Your task to perform on an android device: Set the phone to "Do not disturb". Image 0: 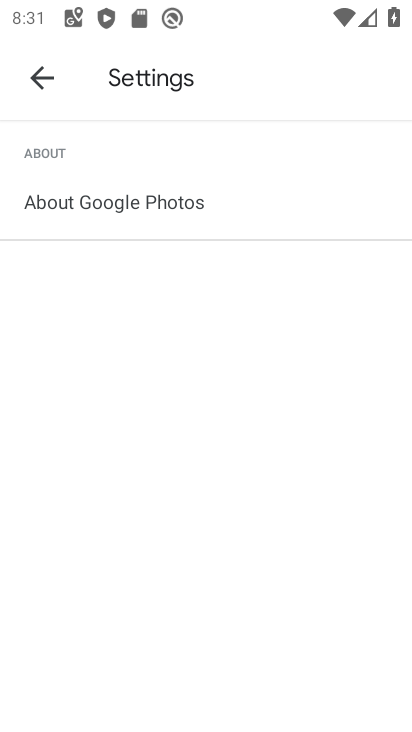
Step 0: press home button
Your task to perform on an android device: Set the phone to "Do not disturb". Image 1: 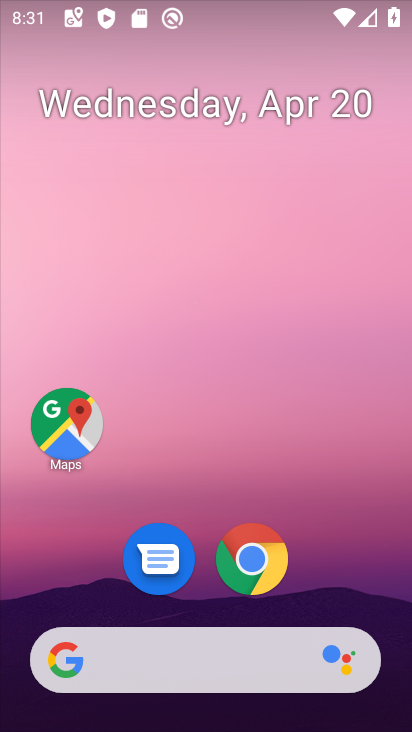
Step 1: drag from (367, 596) to (298, 144)
Your task to perform on an android device: Set the phone to "Do not disturb". Image 2: 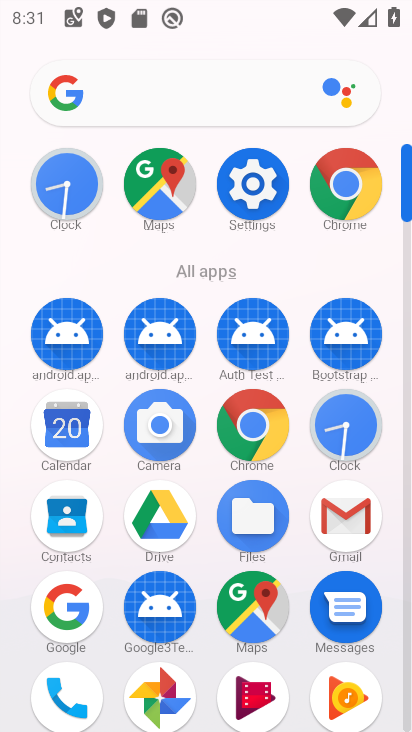
Step 2: click (404, 671)
Your task to perform on an android device: Set the phone to "Do not disturb". Image 3: 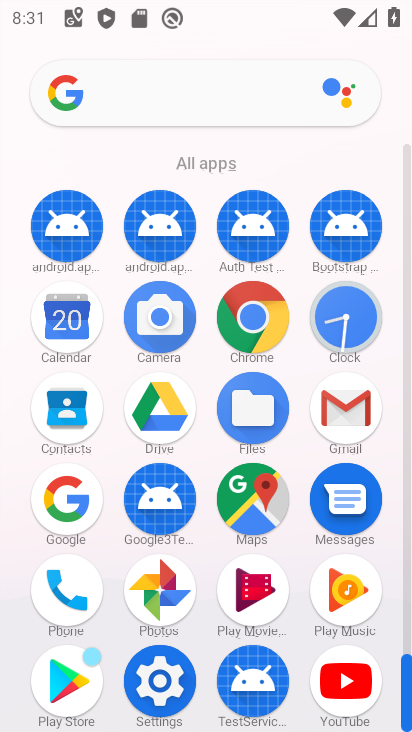
Step 3: click (163, 680)
Your task to perform on an android device: Set the phone to "Do not disturb". Image 4: 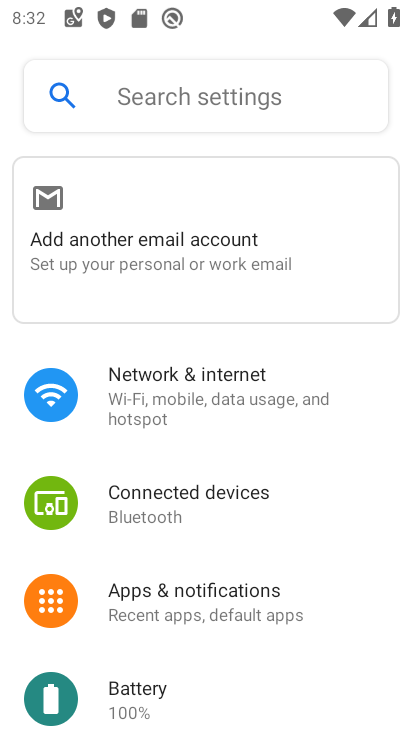
Step 4: drag from (304, 647) to (300, 376)
Your task to perform on an android device: Set the phone to "Do not disturb". Image 5: 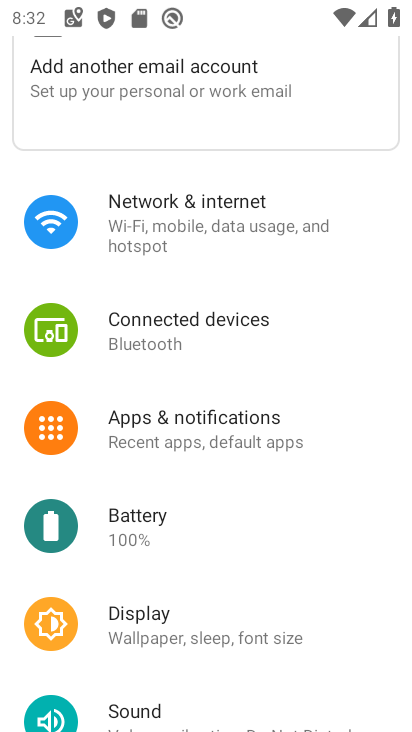
Step 5: drag from (314, 641) to (302, 287)
Your task to perform on an android device: Set the phone to "Do not disturb". Image 6: 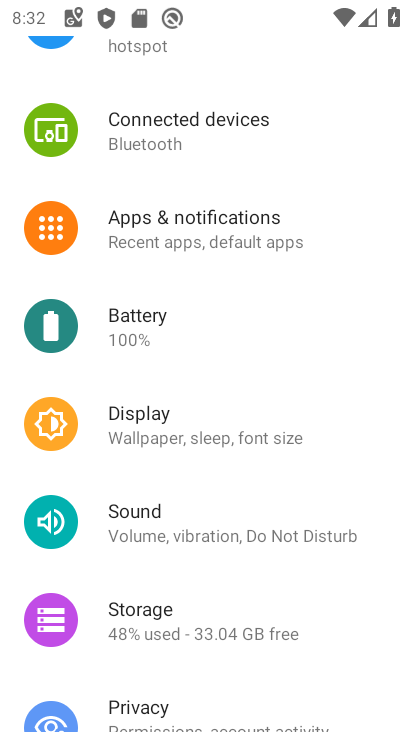
Step 6: click (188, 530)
Your task to perform on an android device: Set the phone to "Do not disturb". Image 7: 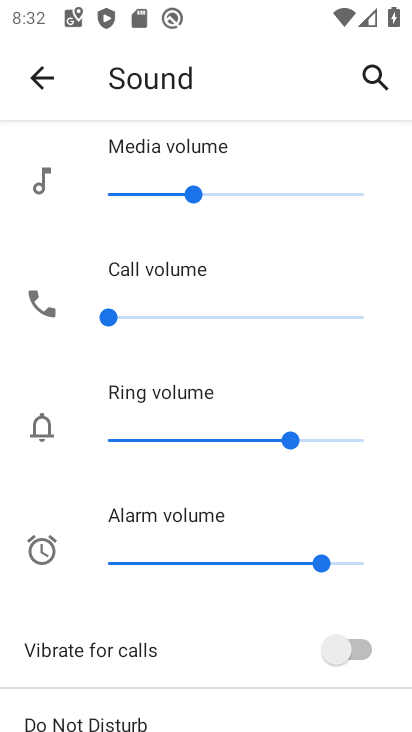
Step 7: drag from (218, 609) to (179, 195)
Your task to perform on an android device: Set the phone to "Do not disturb". Image 8: 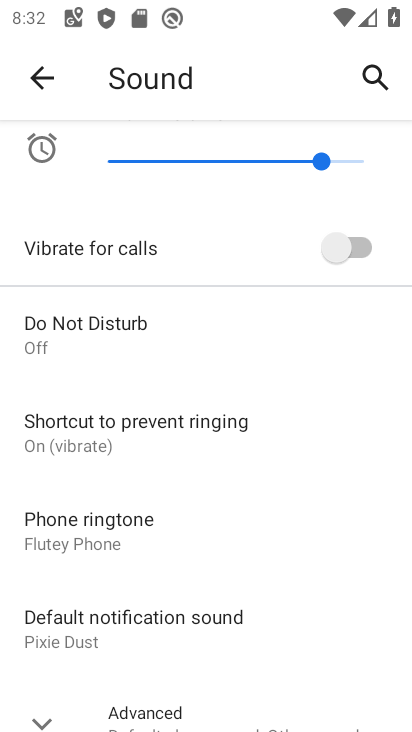
Step 8: click (71, 344)
Your task to perform on an android device: Set the phone to "Do not disturb". Image 9: 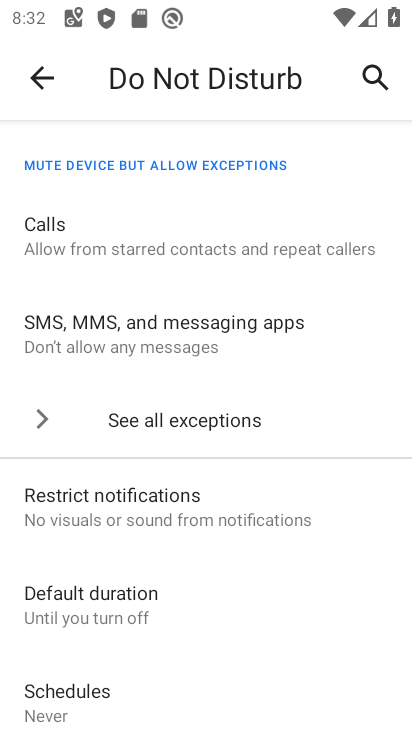
Step 9: drag from (237, 627) to (248, 298)
Your task to perform on an android device: Set the phone to "Do not disturb". Image 10: 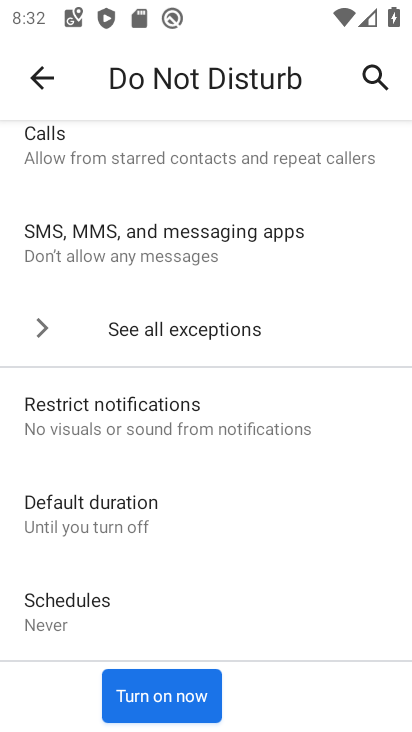
Step 10: click (153, 691)
Your task to perform on an android device: Set the phone to "Do not disturb". Image 11: 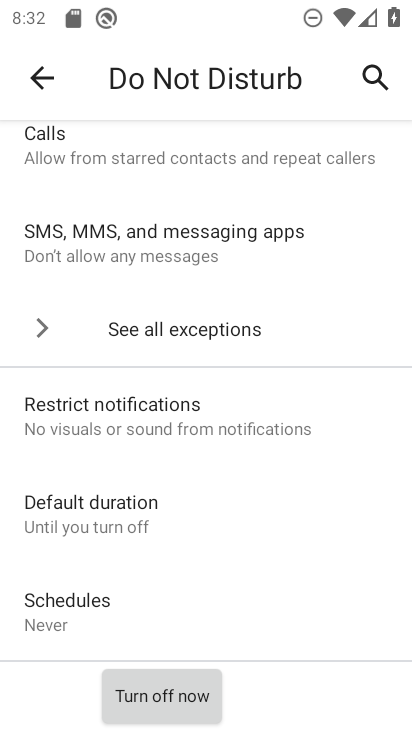
Step 11: task complete